Your task to perform on an android device: What's on my calendar tomorrow? Image 0: 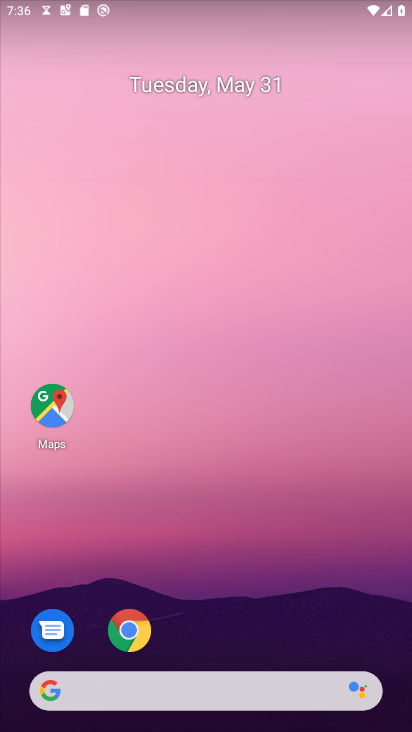
Step 0: drag from (277, 592) to (226, 65)
Your task to perform on an android device: What's on my calendar tomorrow? Image 1: 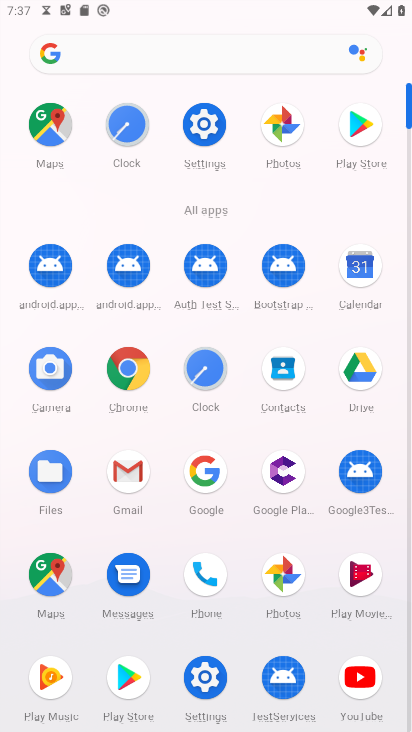
Step 1: click (361, 265)
Your task to perform on an android device: What's on my calendar tomorrow? Image 2: 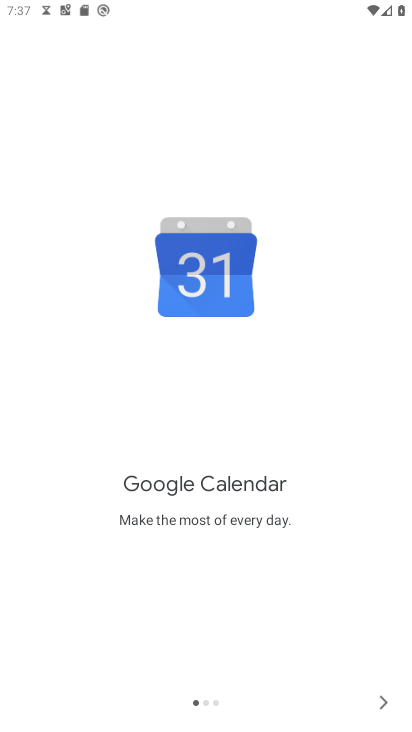
Step 2: click (383, 702)
Your task to perform on an android device: What's on my calendar tomorrow? Image 3: 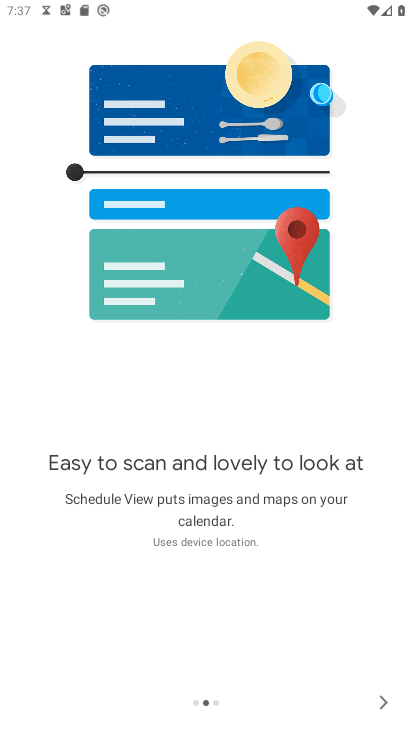
Step 3: click (383, 702)
Your task to perform on an android device: What's on my calendar tomorrow? Image 4: 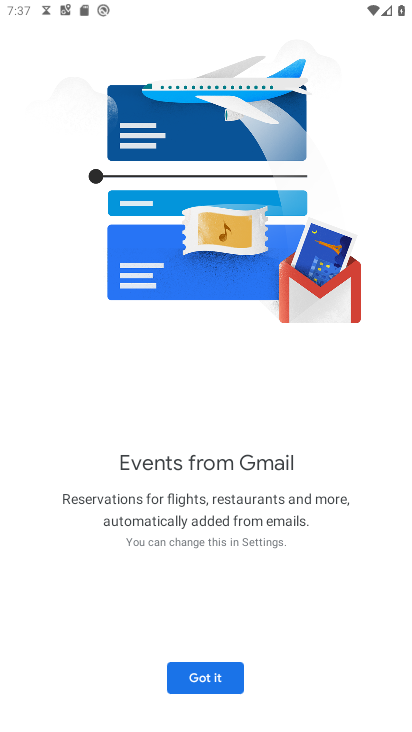
Step 4: click (226, 678)
Your task to perform on an android device: What's on my calendar tomorrow? Image 5: 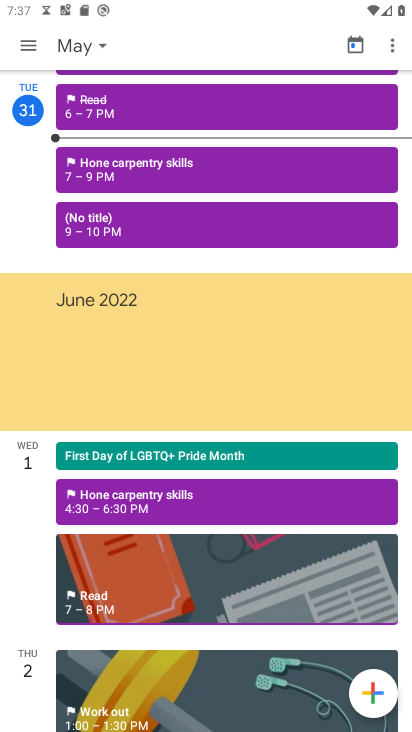
Step 5: click (99, 45)
Your task to perform on an android device: What's on my calendar tomorrow? Image 6: 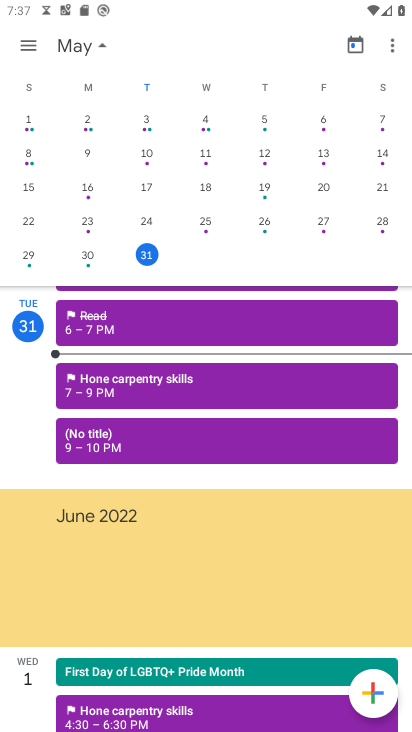
Step 6: drag from (359, 196) to (4, 196)
Your task to perform on an android device: What's on my calendar tomorrow? Image 7: 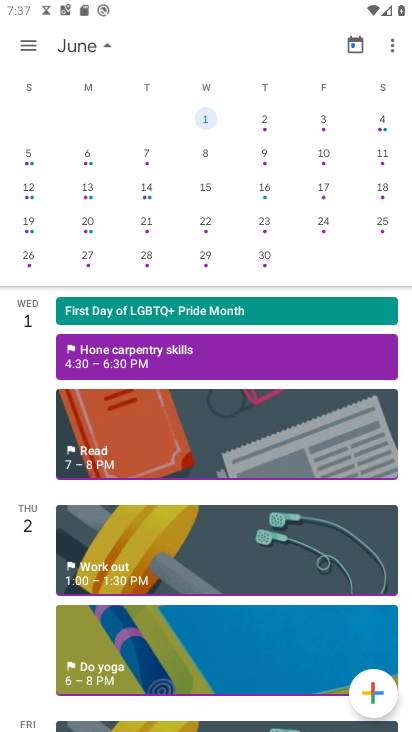
Step 7: click (205, 122)
Your task to perform on an android device: What's on my calendar tomorrow? Image 8: 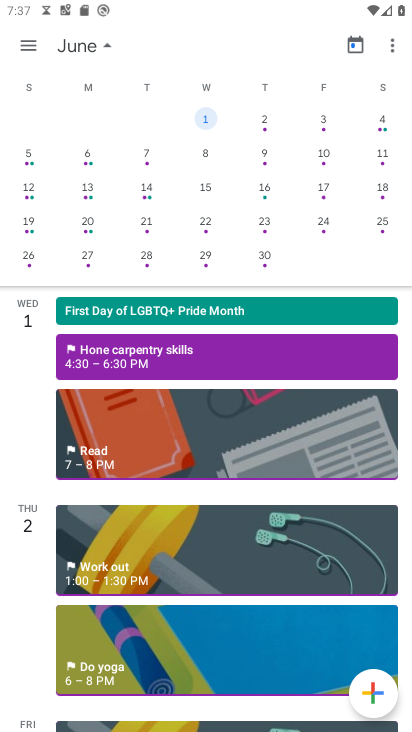
Step 8: click (20, 44)
Your task to perform on an android device: What's on my calendar tomorrow? Image 9: 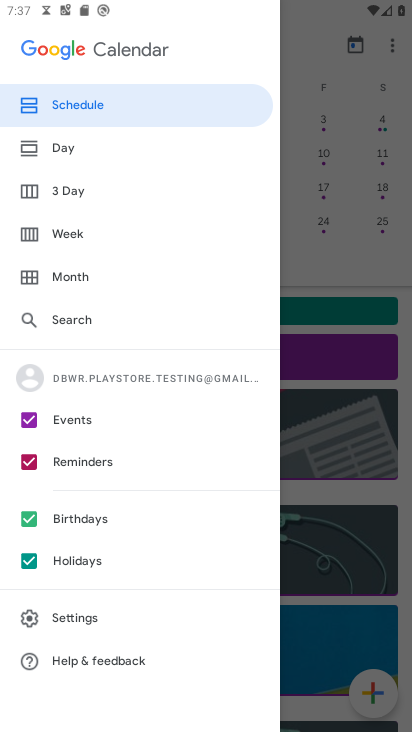
Step 9: click (107, 101)
Your task to perform on an android device: What's on my calendar tomorrow? Image 10: 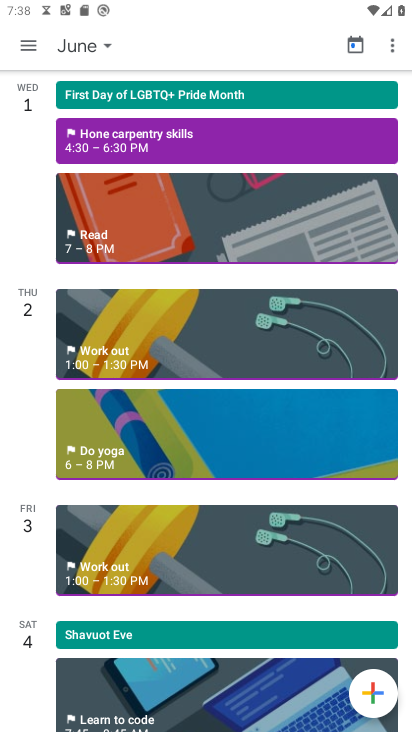
Step 10: task complete